Your task to perform on an android device: change keyboard looks Image 0: 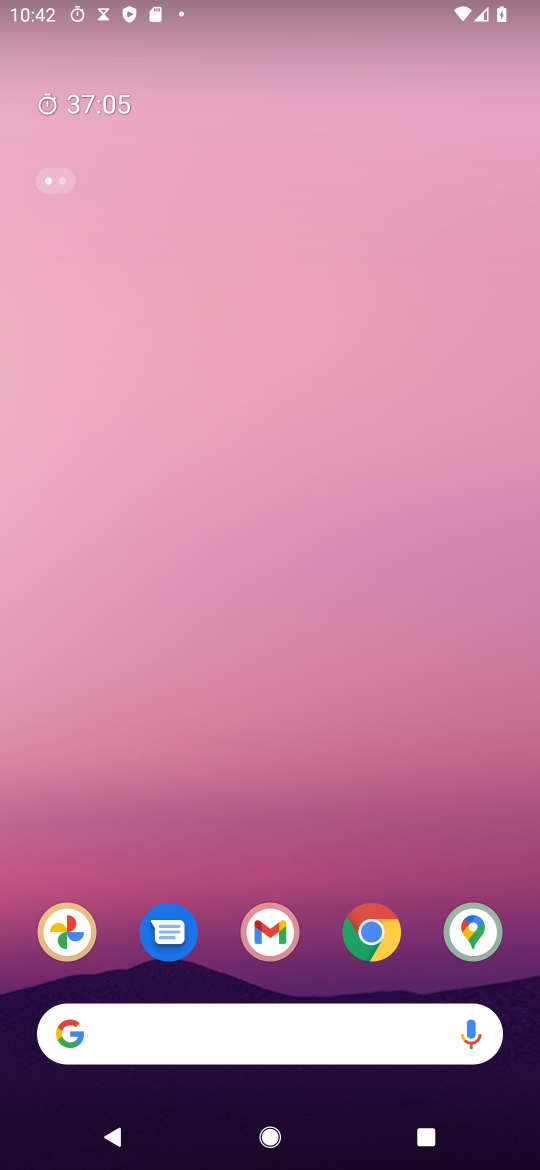
Step 0: drag from (338, 832) to (232, 6)
Your task to perform on an android device: change keyboard looks Image 1: 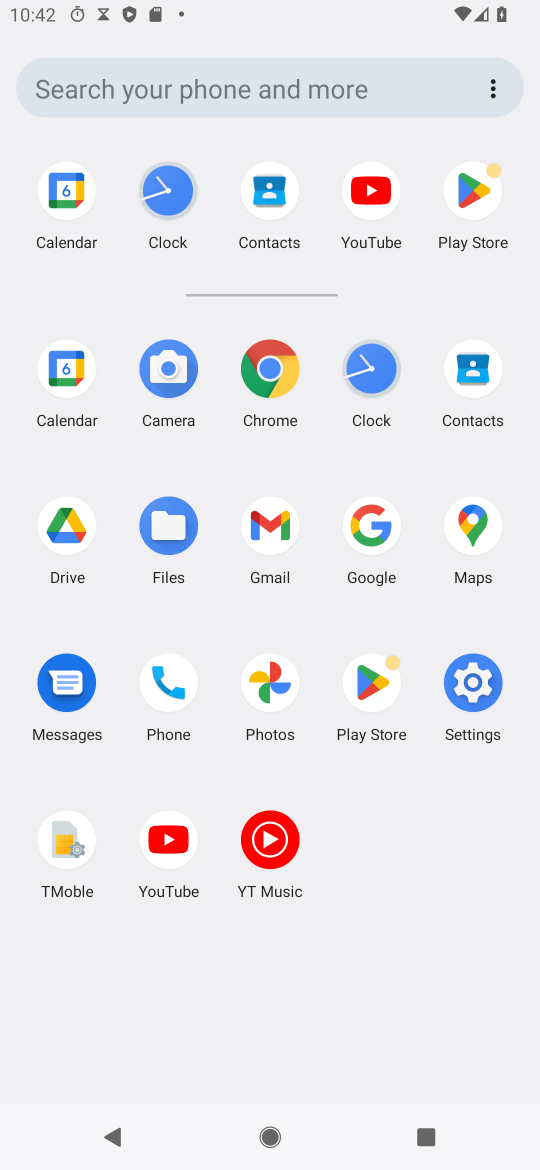
Step 1: click (476, 679)
Your task to perform on an android device: change keyboard looks Image 2: 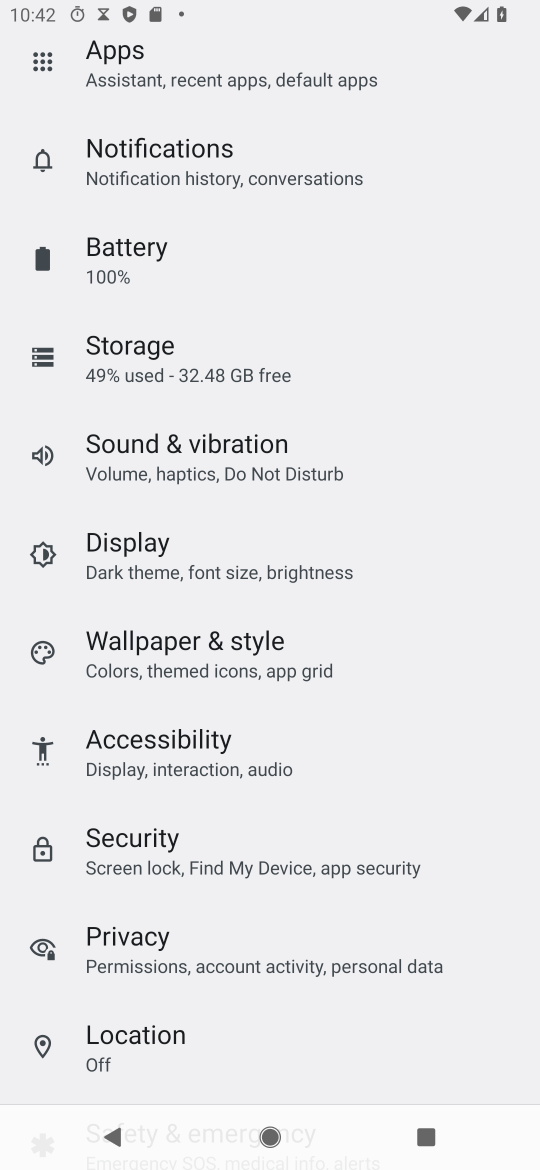
Step 2: drag from (279, 1038) to (172, 220)
Your task to perform on an android device: change keyboard looks Image 3: 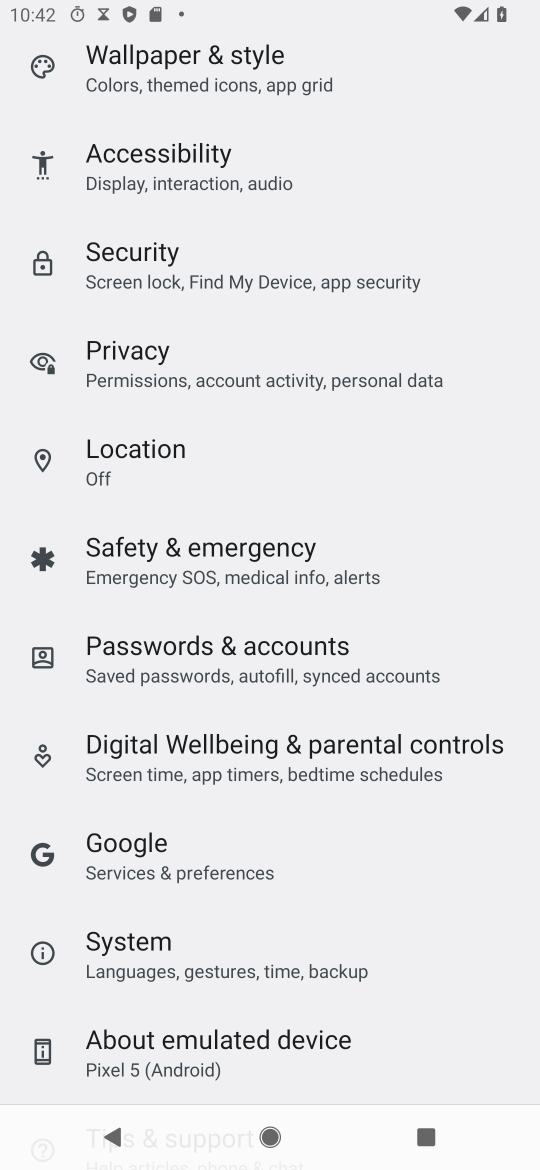
Step 3: drag from (256, 924) to (211, 275)
Your task to perform on an android device: change keyboard looks Image 4: 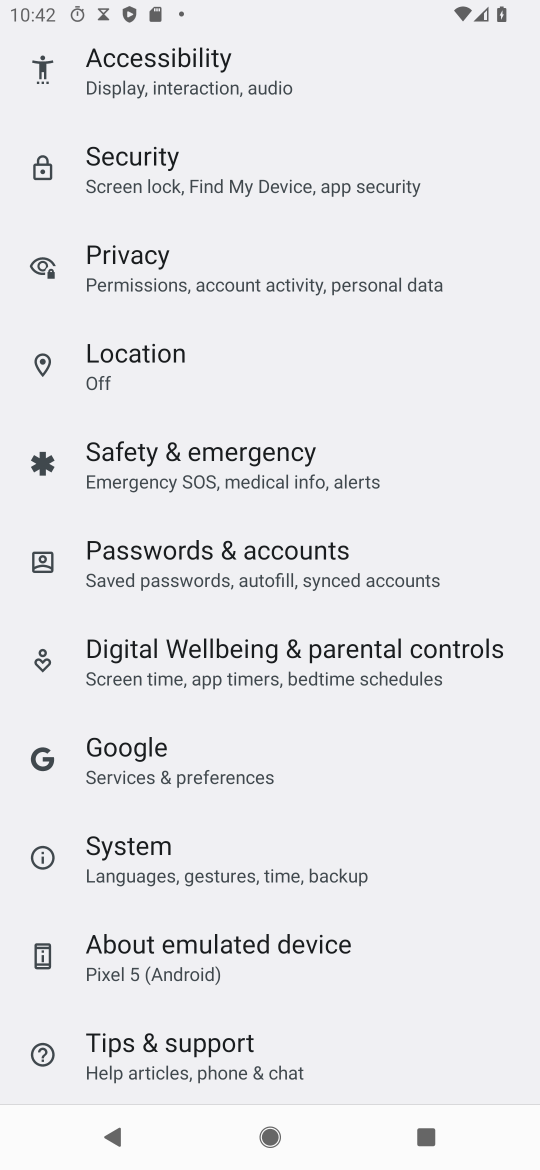
Step 4: click (273, 872)
Your task to perform on an android device: change keyboard looks Image 5: 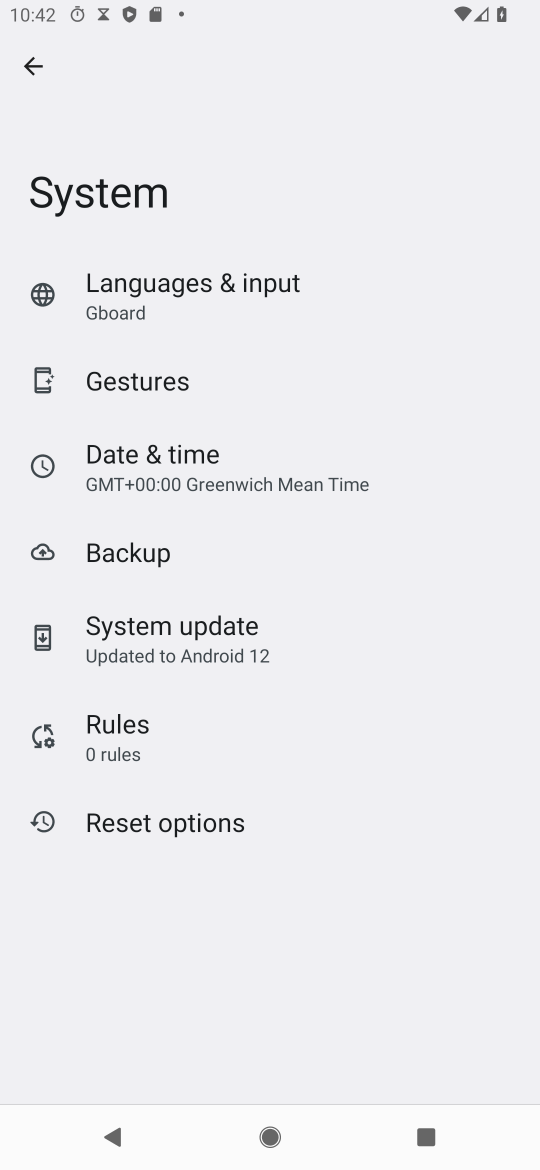
Step 5: click (205, 300)
Your task to perform on an android device: change keyboard looks Image 6: 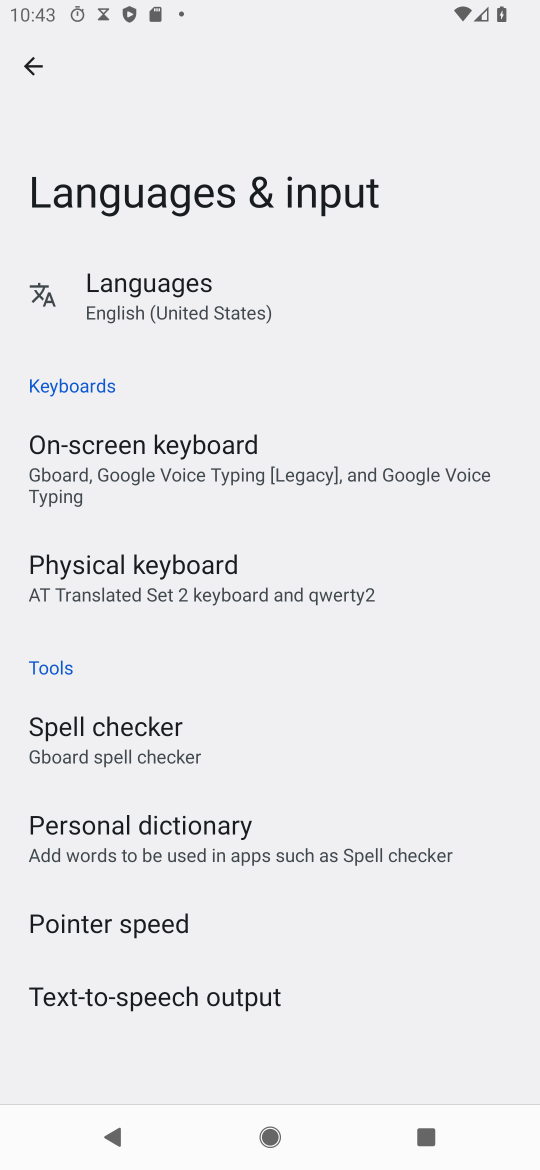
Step 6: click (203, 446)
Your task to perform on an android device: change keyboard looks Image 7: 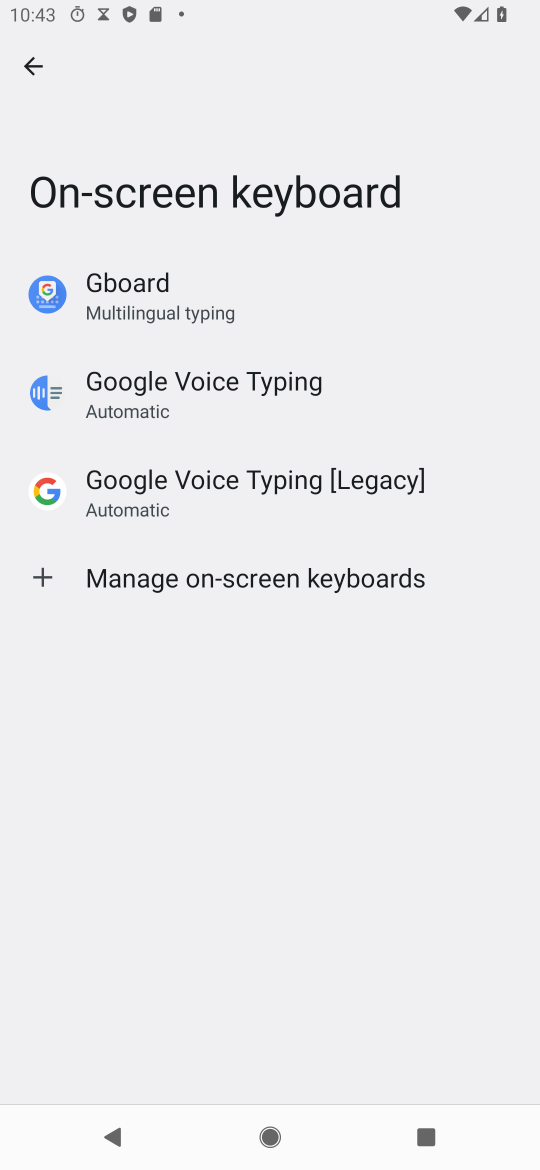
Step 7: click (228, 298)
Your task to perform on an android device: change keyboard looks Image 8: 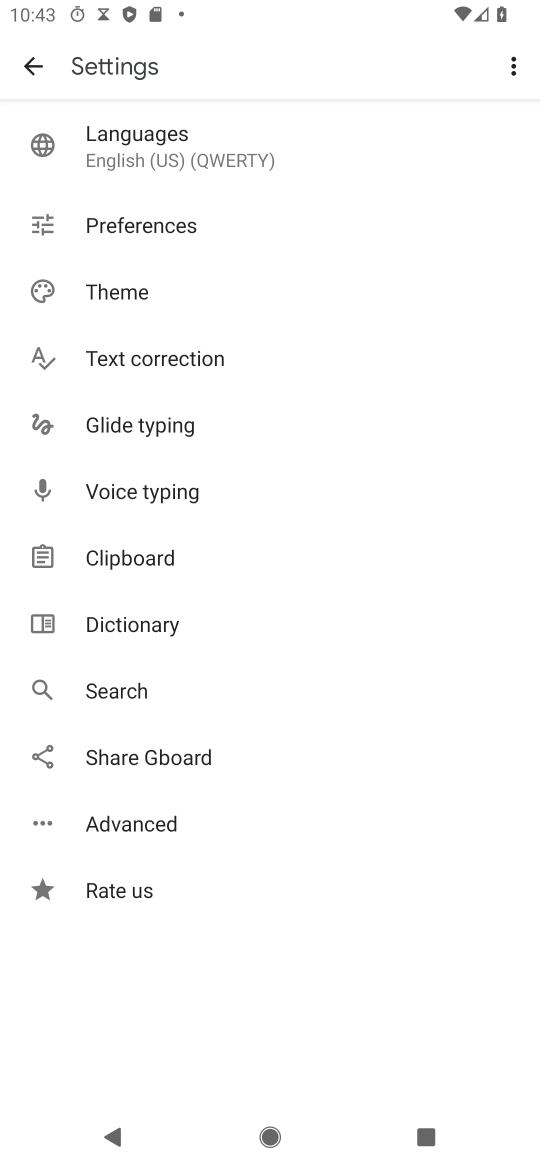
Step 8: click (193, 283)
Your task to perform on an android device: change keyboard looks Image 9: 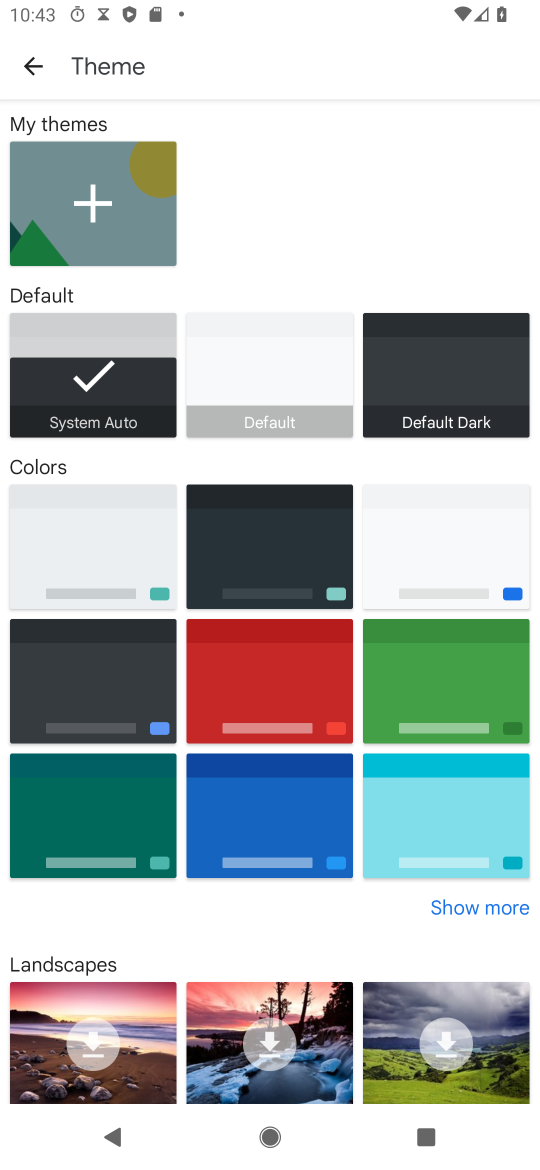
Step 9: click (263, 542)
Your task to perform on an android device: change keyboard looks Image 10: 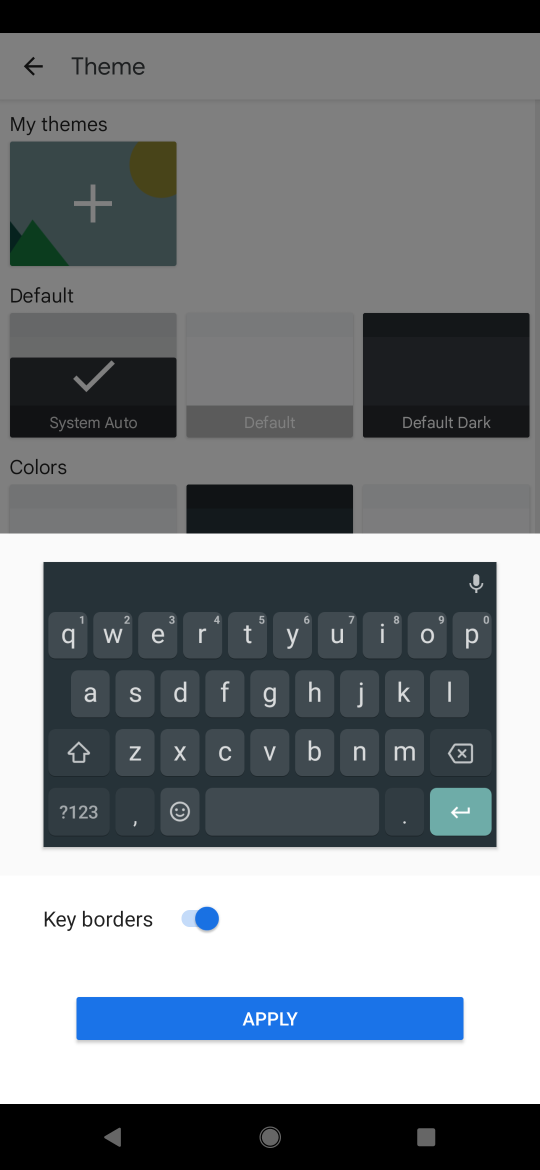
Step 10: click (315, 1005)
Your task to perform on an android device: change keyboard looks Image 11: 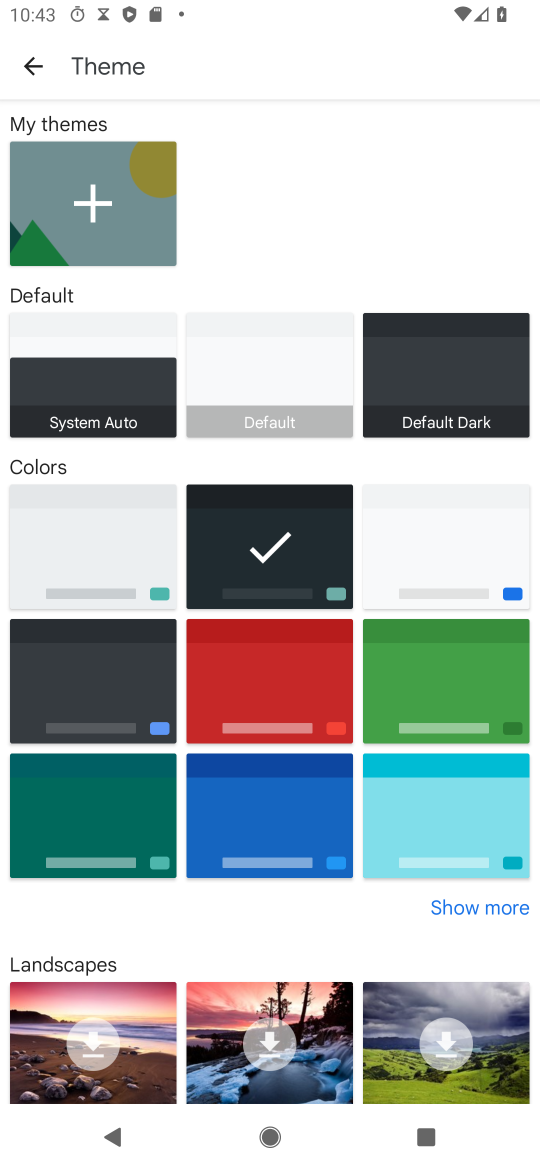
Step 11: task complete